Your task to perform on an android device: Open the phone app and click the voicemail tab. Image 0: 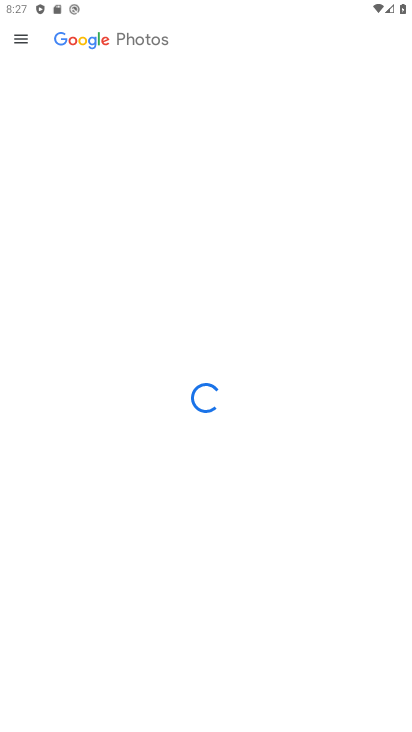
Step 0: press home button
Your task to perform on an android device: Open the phone app and click the voicemail tab. Image 1: 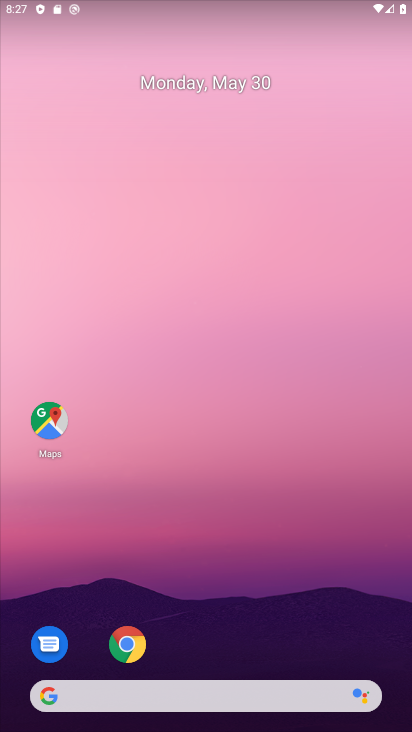
Step 1: drag from (220, 626) to (247, 134)
Your task to perform on an android device: Open the phone app and click the voicemail tab. Image 2: 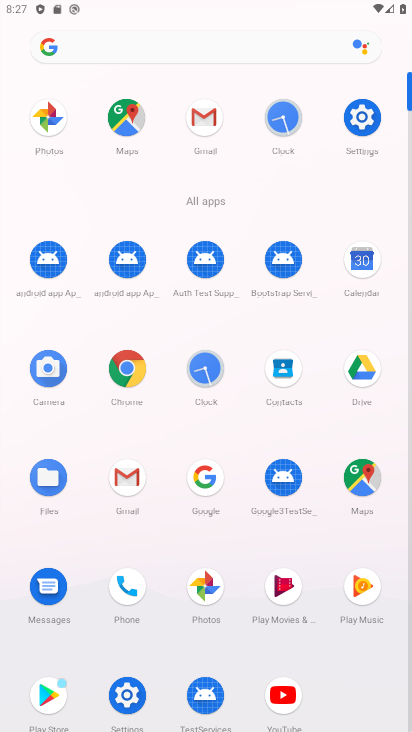
Step 2: click (131, 587)
Your task to perform on an android device: Open the phone app and click the voicemail tab. Image 3: 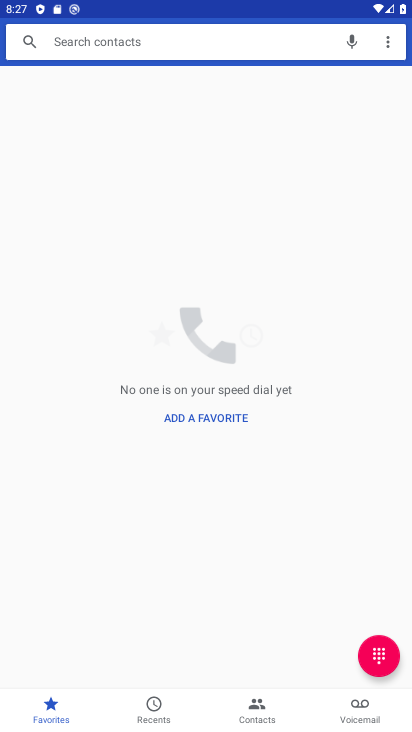
Step 3: click (381, 698)
Your task to perform on an android device: Open the phone app and click the voicemail tab. Image 4: 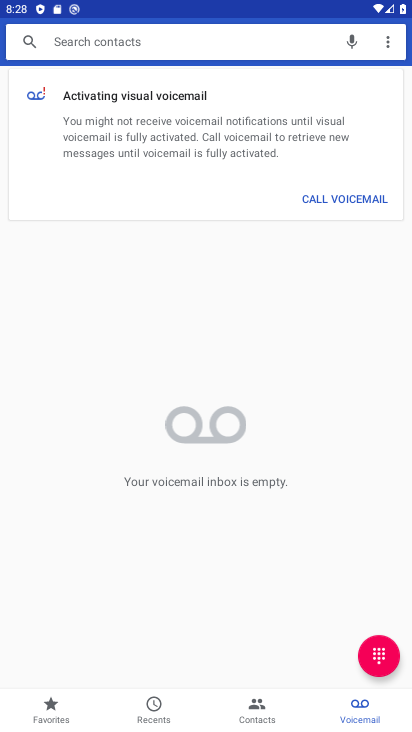
Step 4: task complete